Your task to perform on an android device: Open the calendar app, open the side menu, and click the "Day" option Image 0: 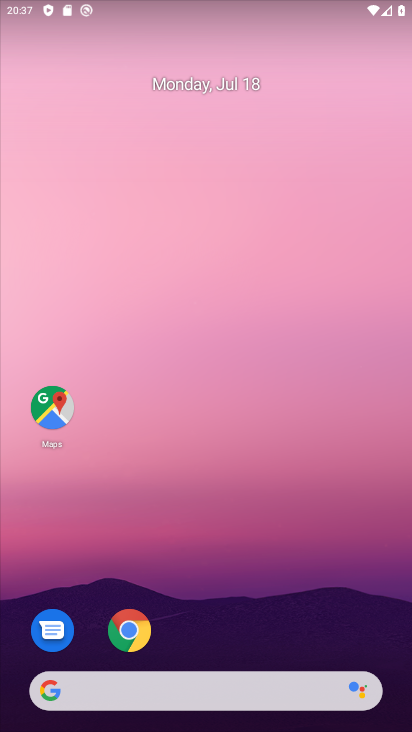
Step 0: drag from (250, 647) to (219, 254)
Your task to perform on an android device: Open the calendar app, open the side menu, and click the "Day" option Image 1: 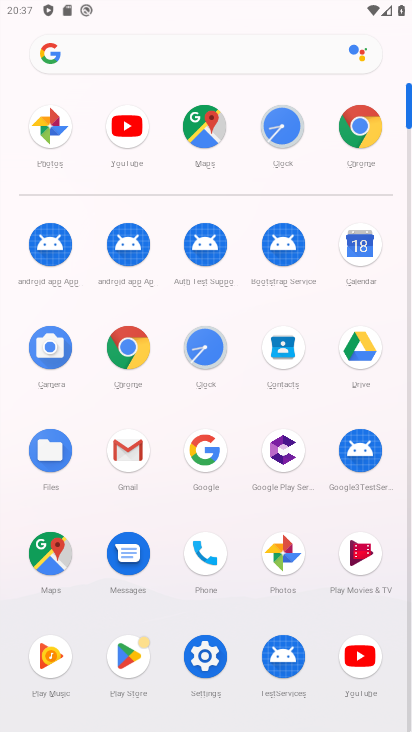
Step 1: click (356, 237)
Your task to perform on an android device: Open the calendar app, open the side menu, and click the "Day" option Image 2: 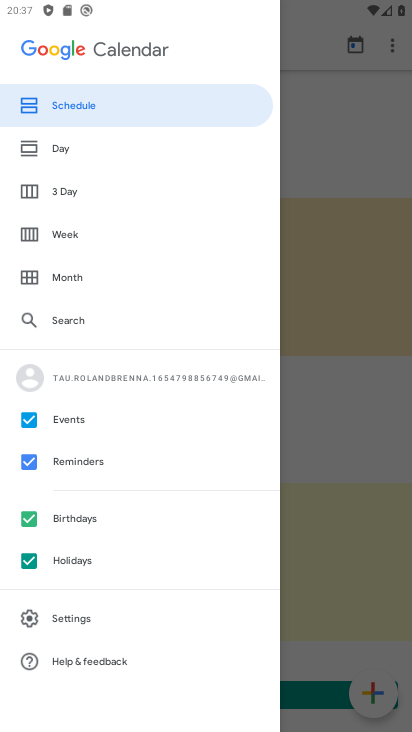
Step 2: click (69, 149)
Your task to perform on an android device: Open the calendar app, open the side menu, and click the "Day" option Image 3: 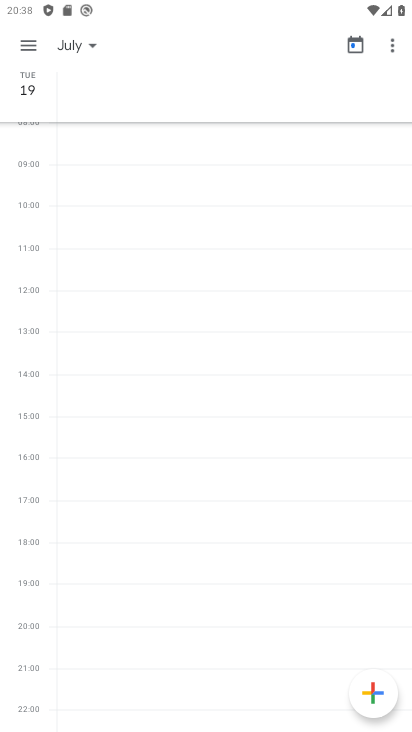
Step 3: task complete